Your task to perform on an android device: What's the news this month? Image 0: 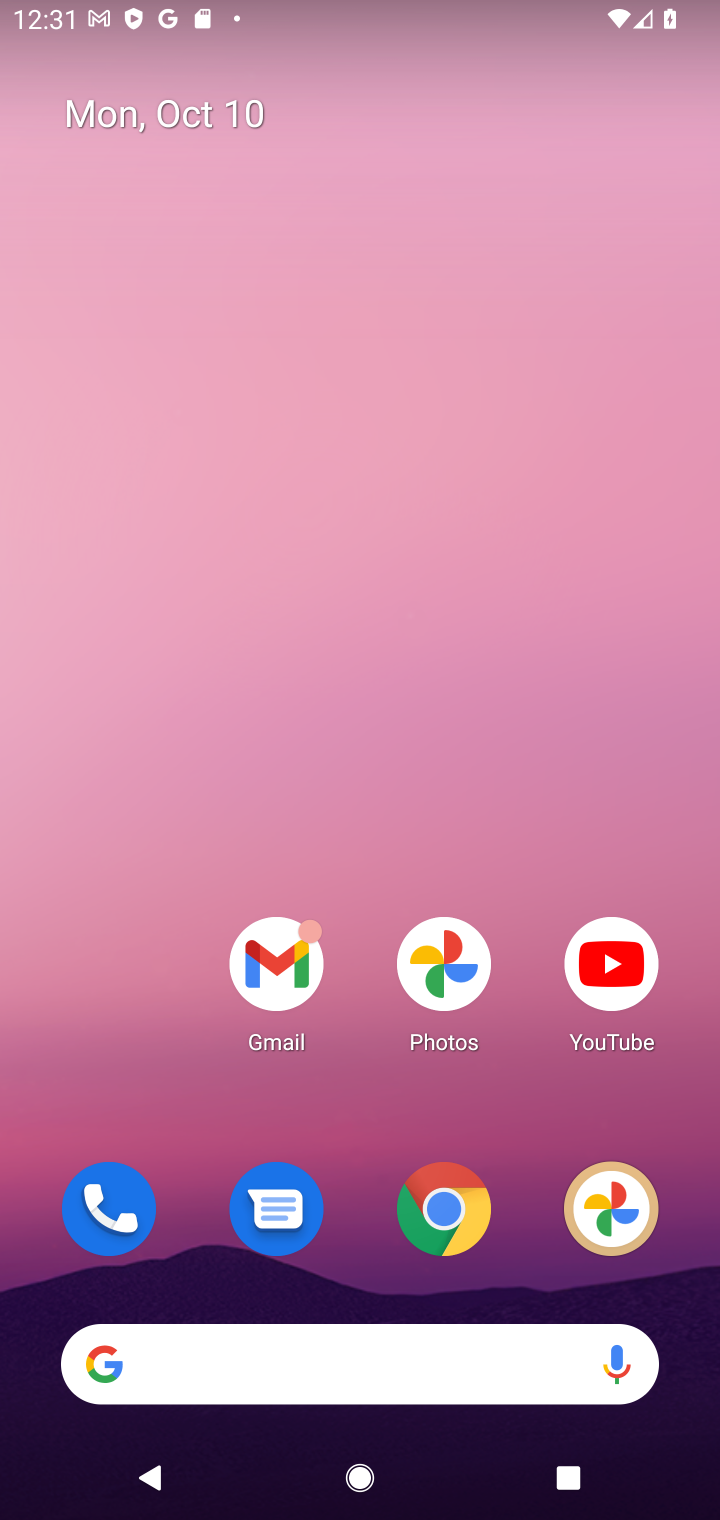
Step 0: drag from (333, 1110) to (419, 2)
Your task to perform on an android device: What's the news this month? Image 1: 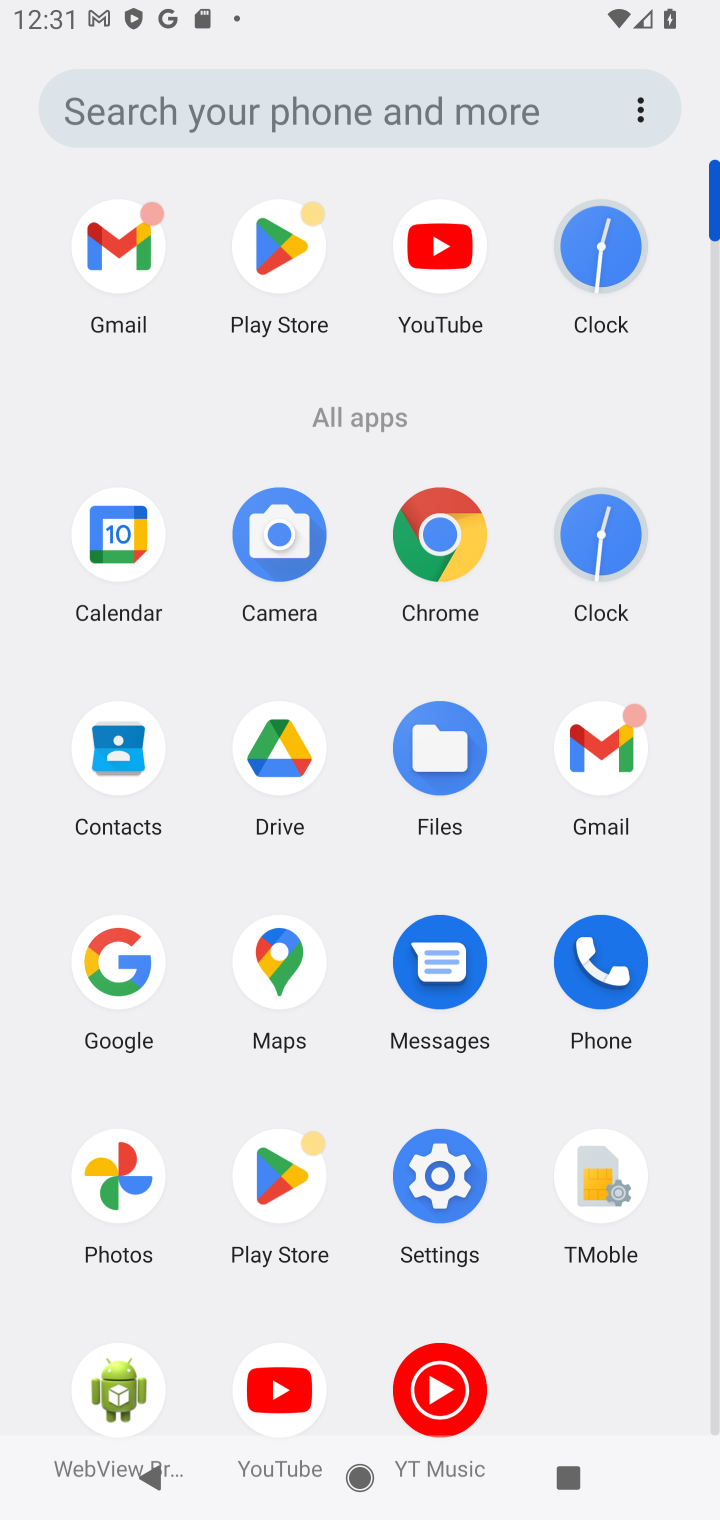
Step 1: click (93, 960)
Your task to perform on an android device: What's the news this month? Image 2: 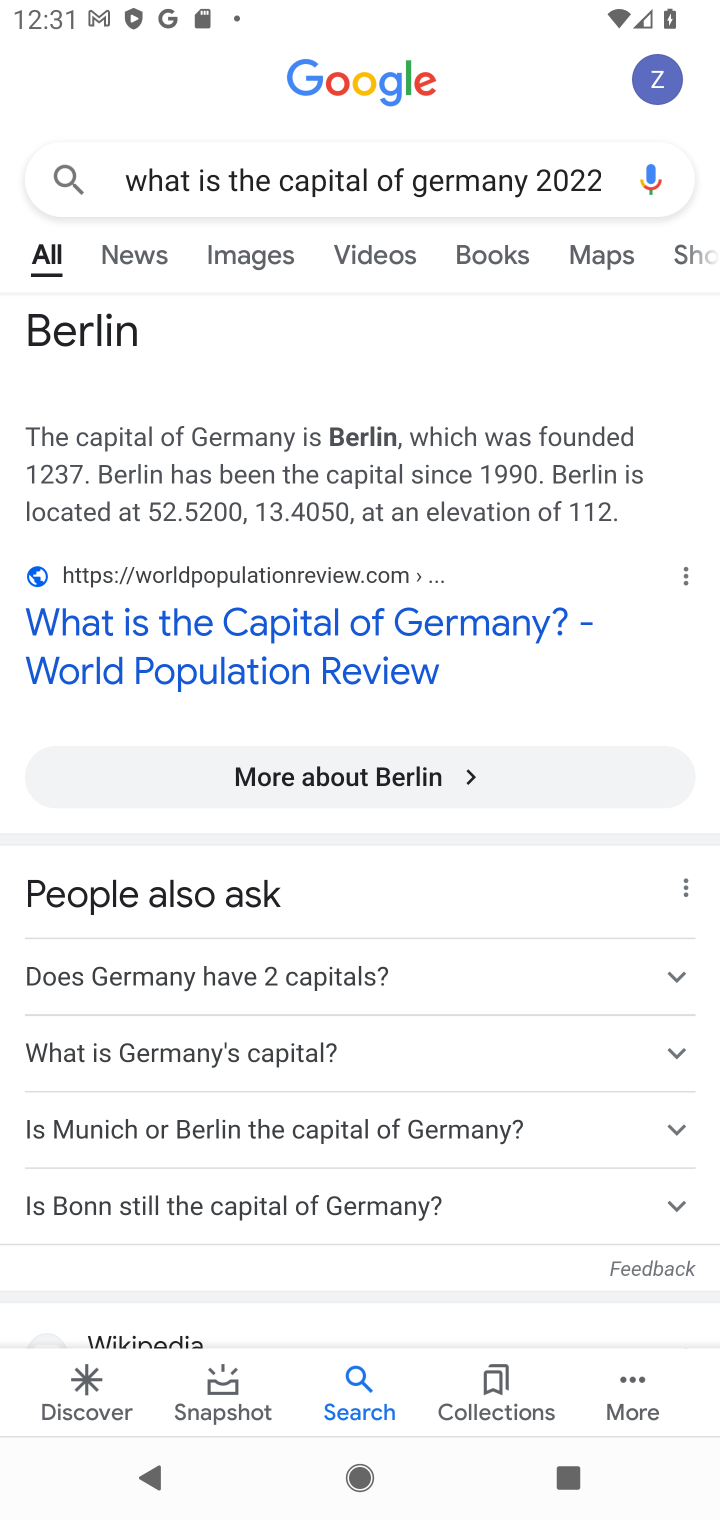
Step 2: click (279, 159)
Your task to perform on an android device: What's the news this month? Image 3: 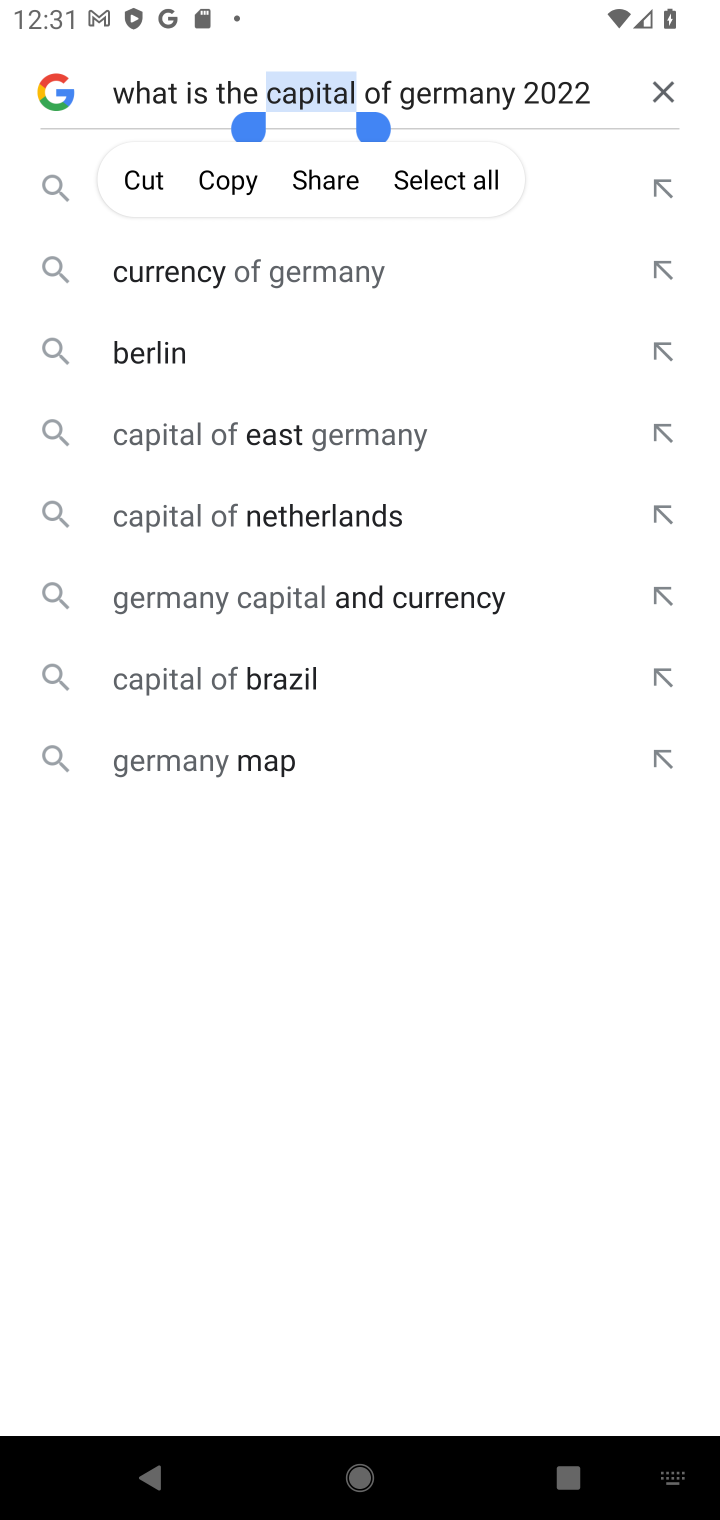
Step 3: click (648, 87)
Your task to perform on an android device: What's the news this month? Image 4: 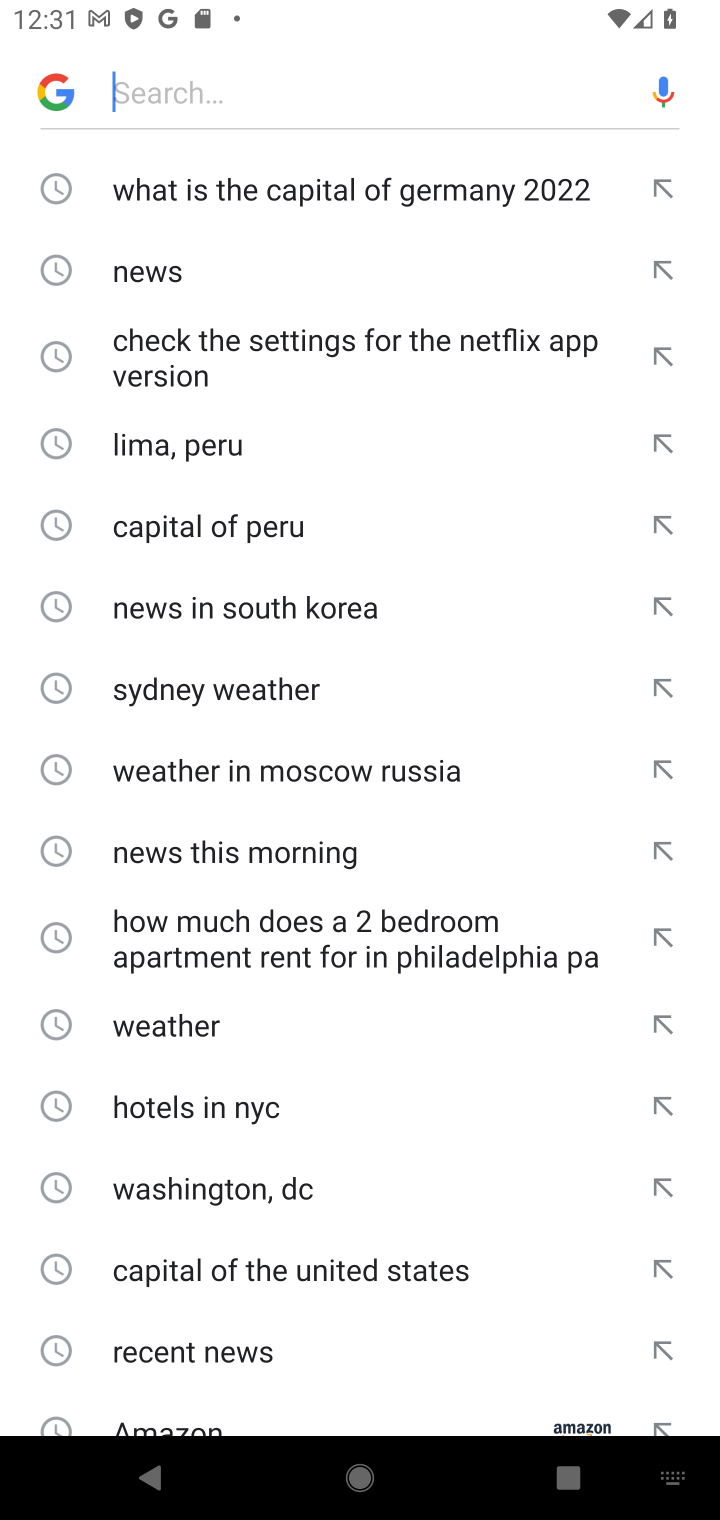
Step 4: type "What's the news this month?"
Your task to perform on an android device: What's the news this month? Image 5: 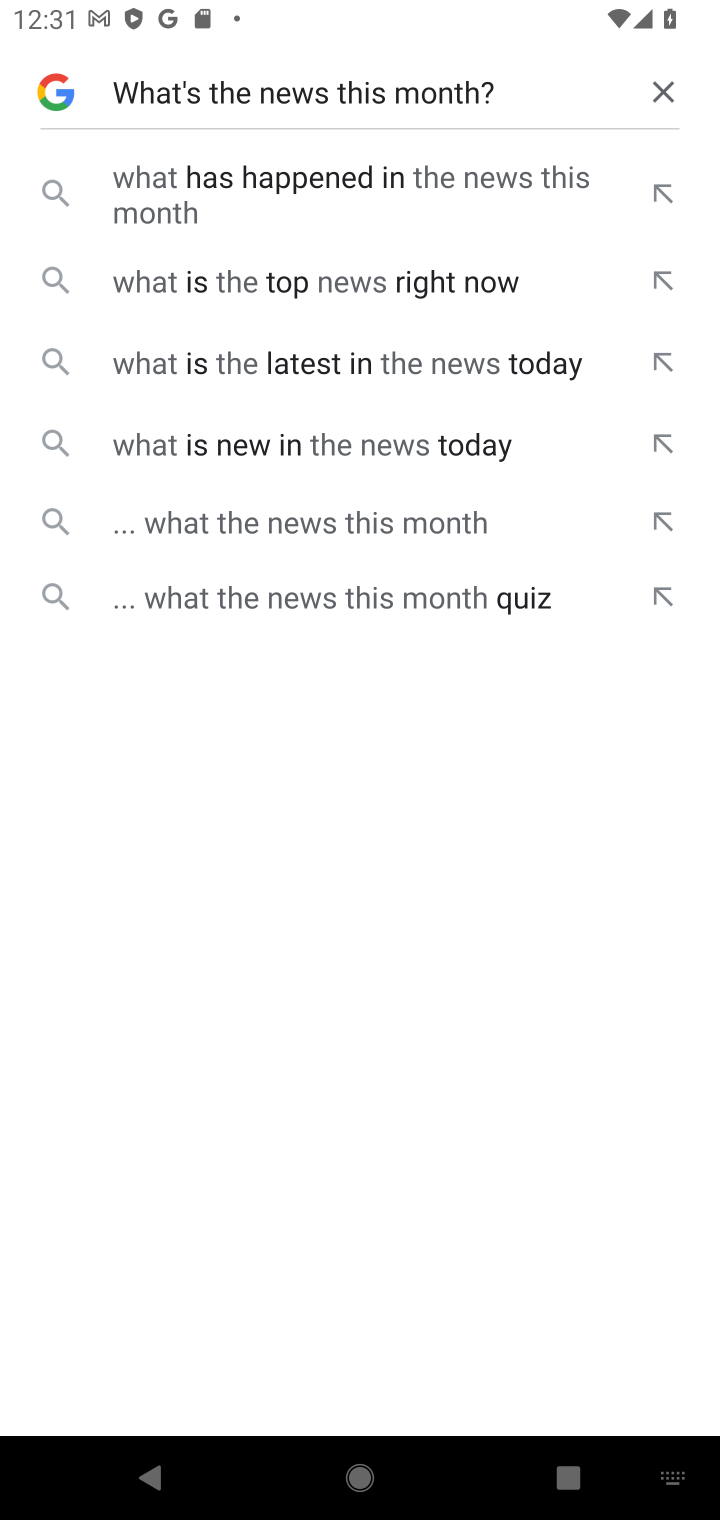
Step 5: click (317, 184)
Your task to perform on an android device: What's the news this month? Image 6: 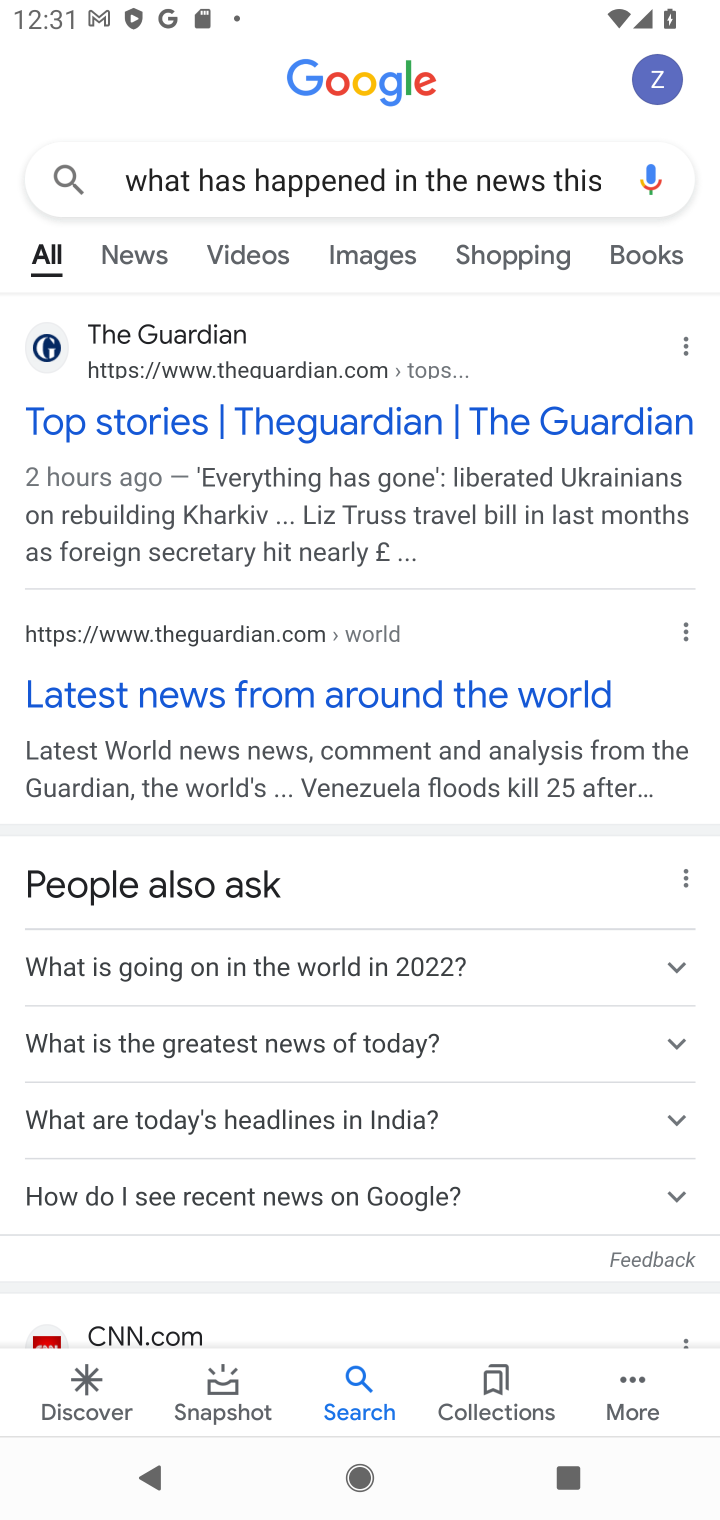
Step 6: click (313, 432)
Your task to perform on an android device: What's the news this month? Image 7: 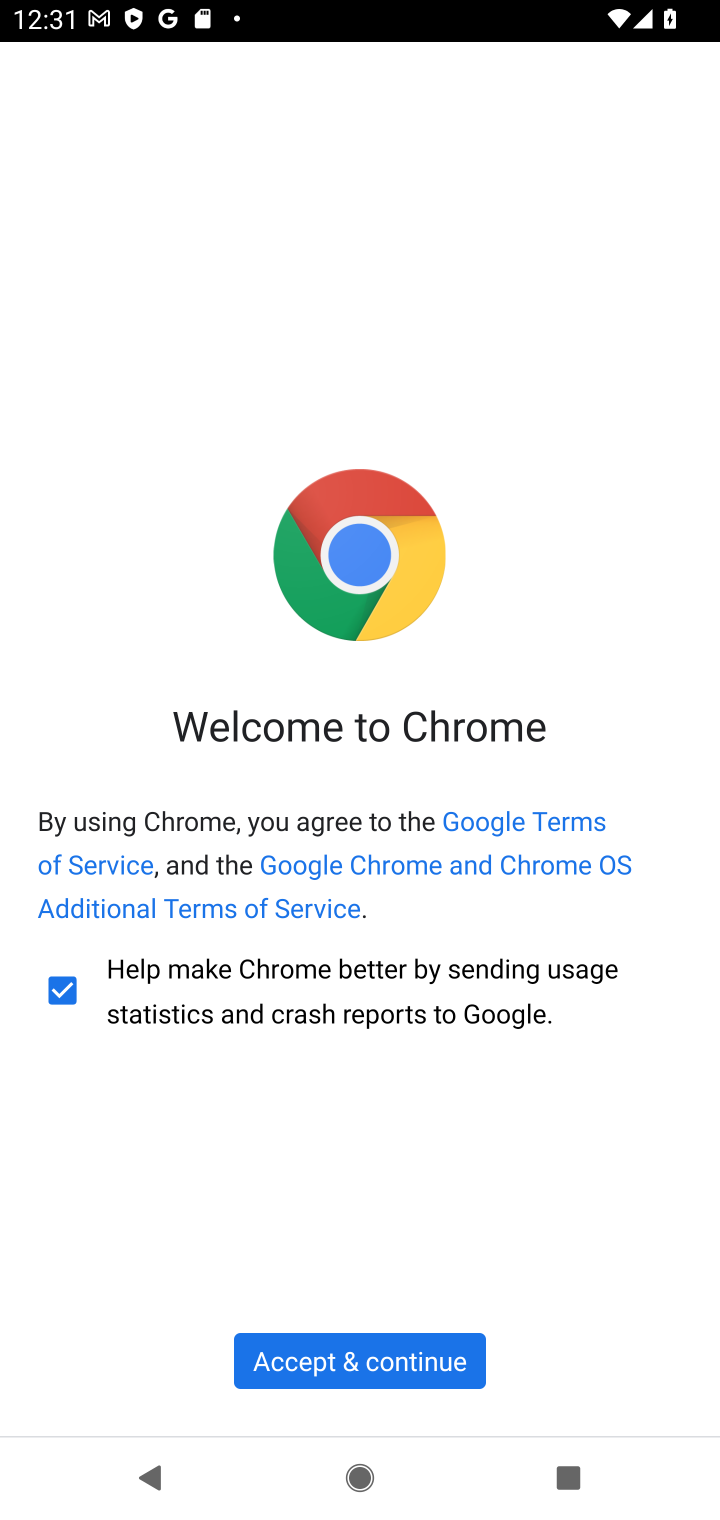
Step 7: click (362, 1360)
Your task to perform on an android device: What's the news this month? Image 8: 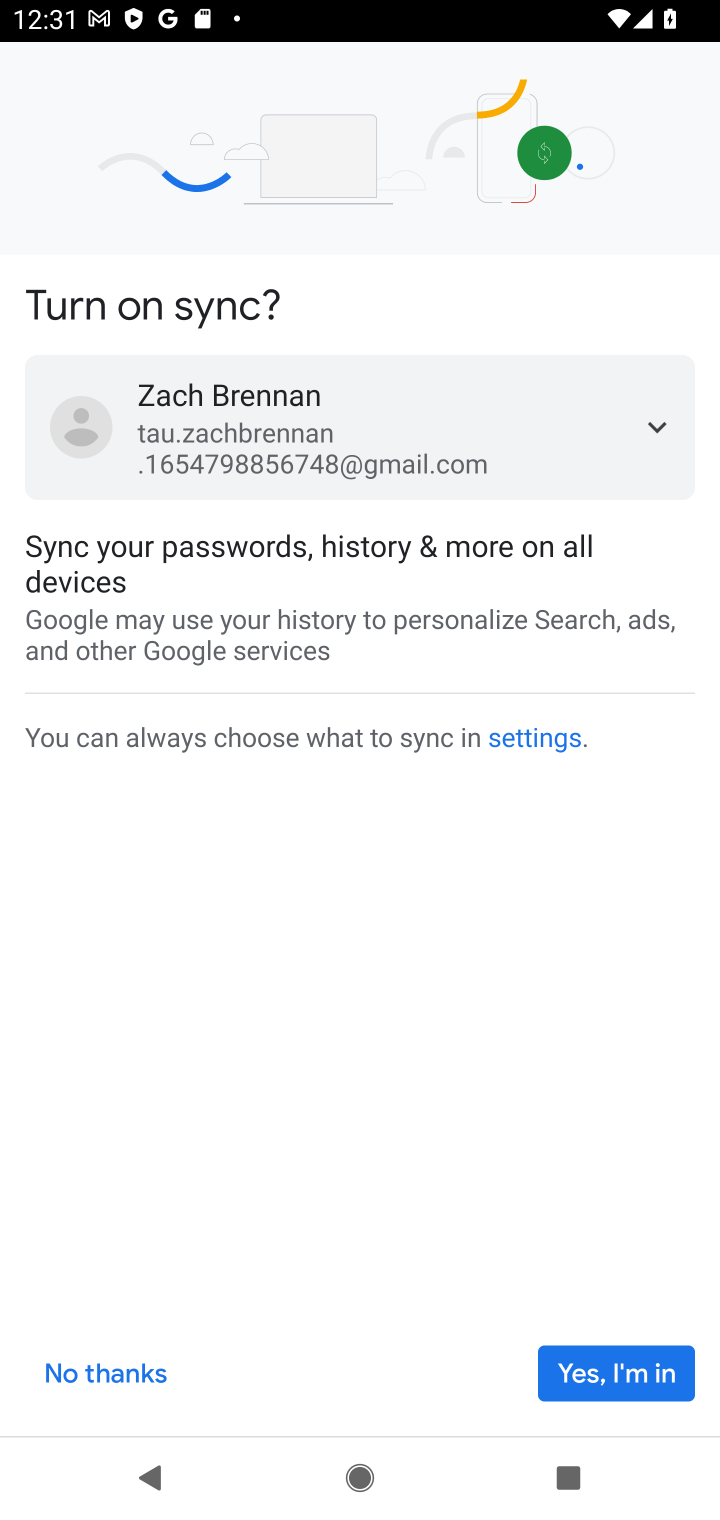
Step 8: click (615, 1390)
Your task to perform on an android device: What's the news this month? Image 9: 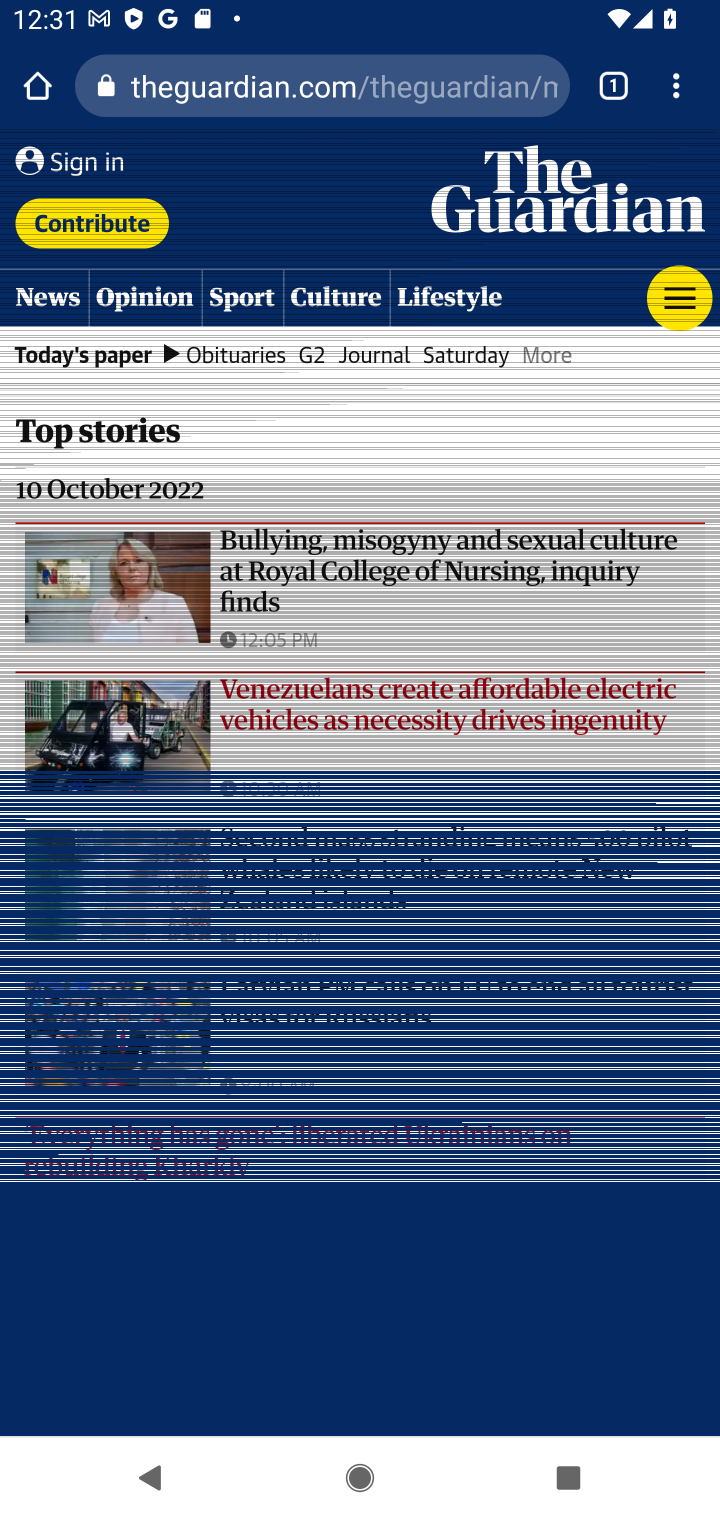
Step 9: task complete